Your task to perform on an android device: Search for vegetarian restaurants on Maps Image 0: 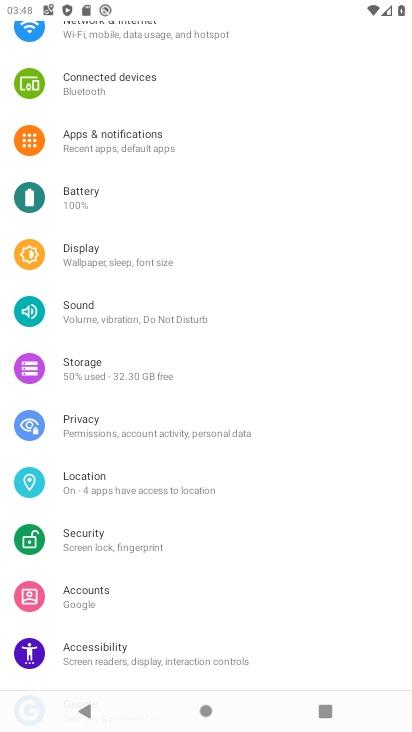
Step 0: press home button
Your task to perform on an android device: Search for vegetarian restaurants on Maps Image 1: 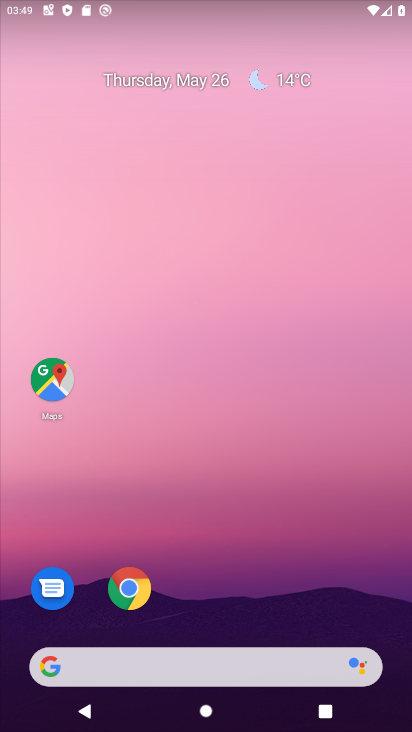
Step 1: drag from (259, 569) to (263, 237)
Your task to perform on an android device: Search for vegetarian restaurants on Maps Image 2: 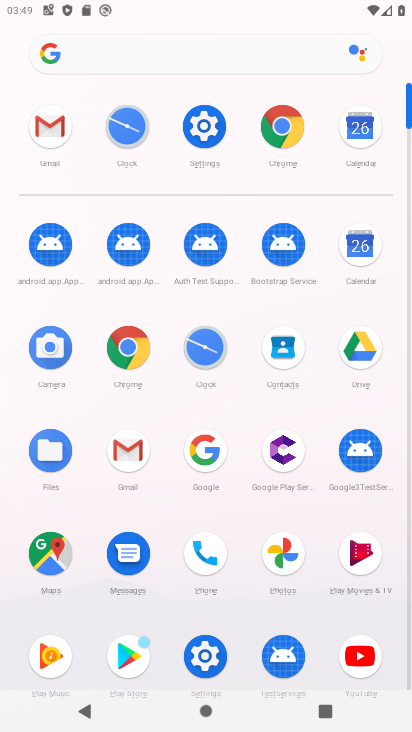
Step 2: click (31, 574)
Your task to perform on an android device: Search for vegetarian restaurants on Maps Image 3: 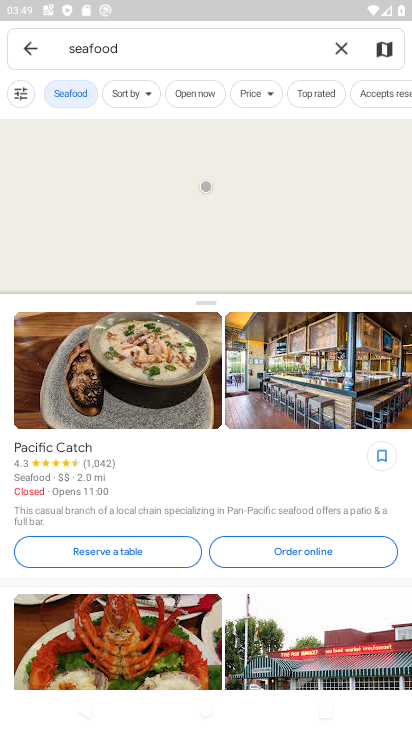
Step 3: click (339, 50)
Your task to perform on an android device: Search for vegetarian restaurants on Maps Image 4: 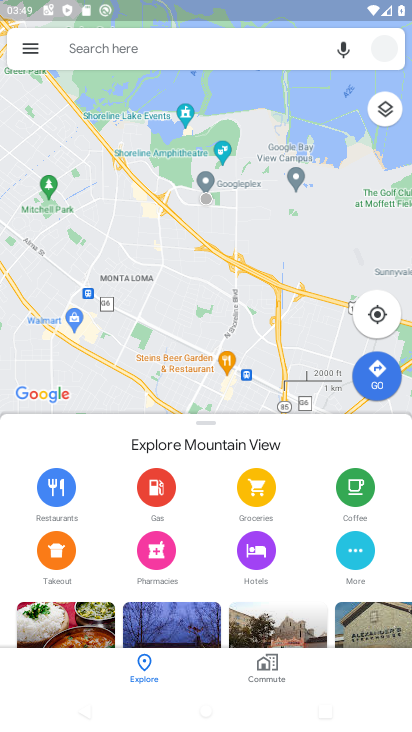
Step 4: click (259, 50)
Your task to perform on an android device: Search for vegetarian restaurants on Maps Image 5: 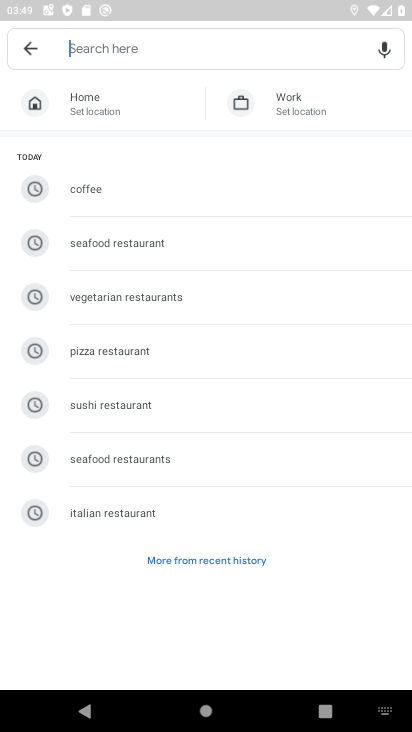
Step 5: type "veget"
Your task to perform on an android device: Search for vegetarian restaurants on Maps Image 6: 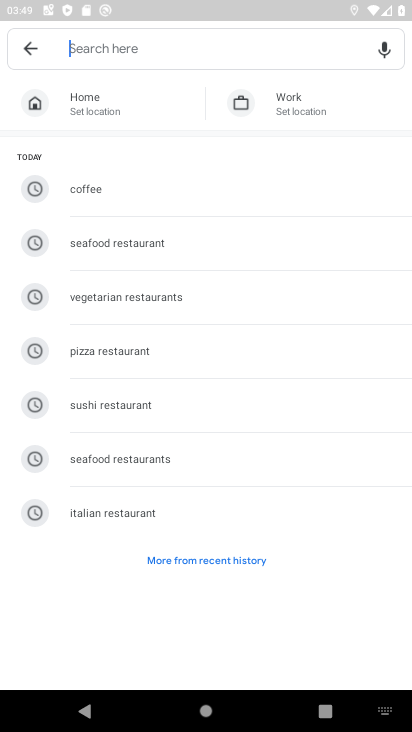
Step 6: click (316, 308)
Your task to perform on an android device: Search for vegetarian restaurants on Maps Image 7: 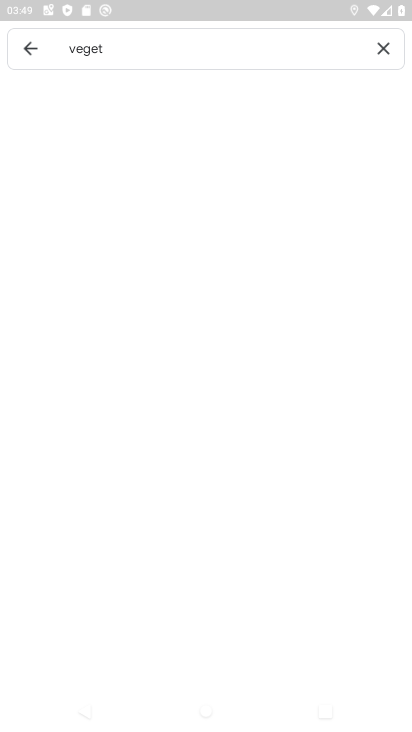
Step 7: task complete